Your task to perform on an android device: Go to settings Image 0: 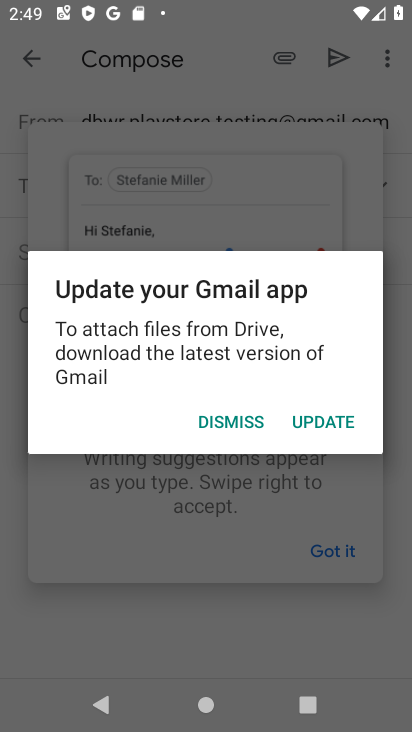
Step 0: press home button
Your task to perform on an android device: Go to settings Image 1: 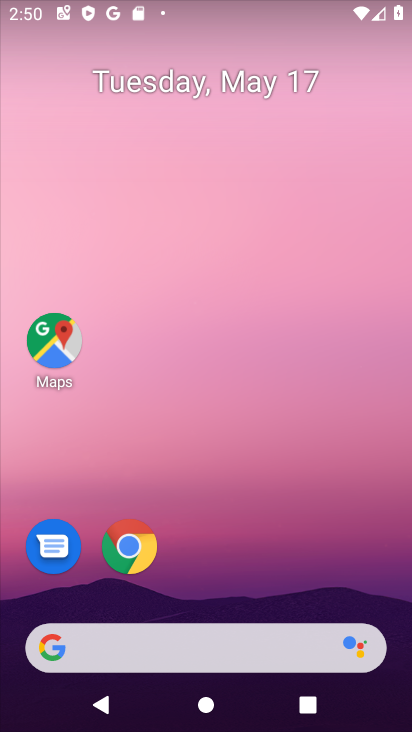
Step 1: drag from (349, 473) to (299, 288)
Your task to perform on an android device: Go to settings Image 2: 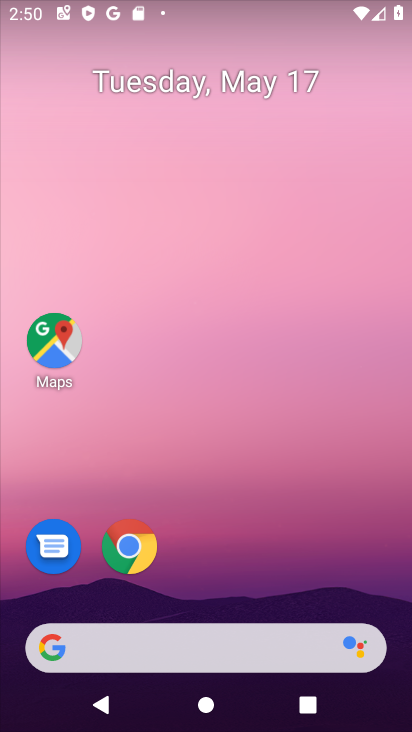
Step 2: drag from (344, 409) to (312, 275)
Your task to perform on an android device: Go to settings Image 3: 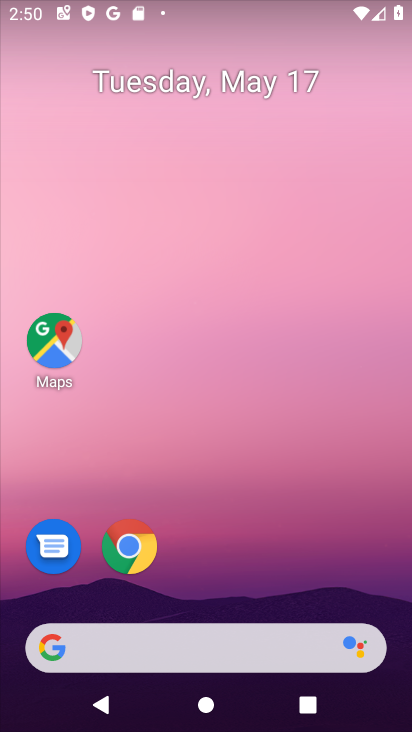
Step 3: drag from (396, 657) to (287, 77)
Your task to perform on an android device: Go to settings Image 4: 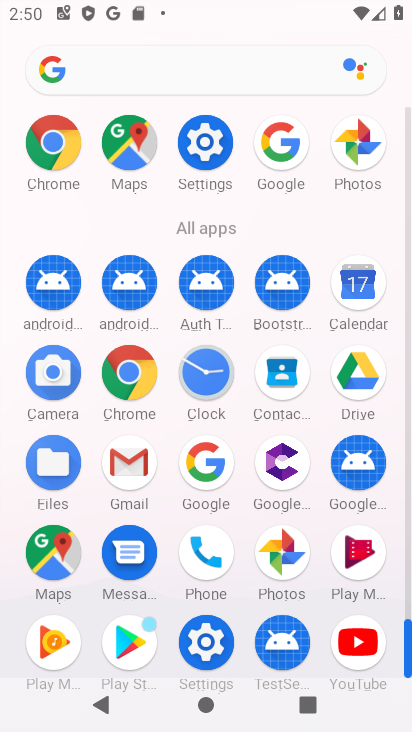
Step 4: click (186, 150)
Your task to perform on an android device: Go to settings Image 5: 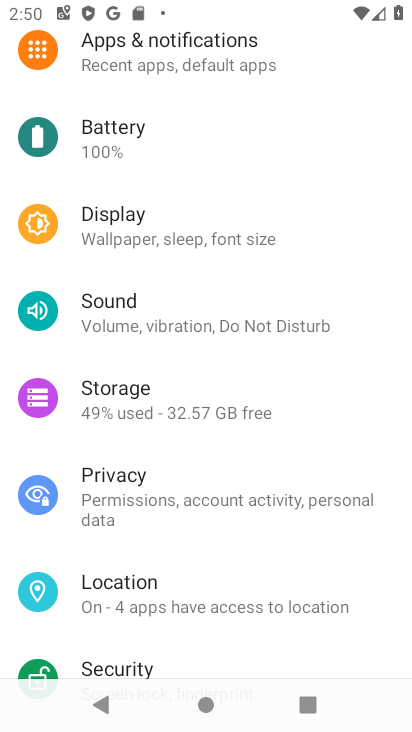
Step 5: task complete